Your task to perform on an android device: delete location history Image 0: 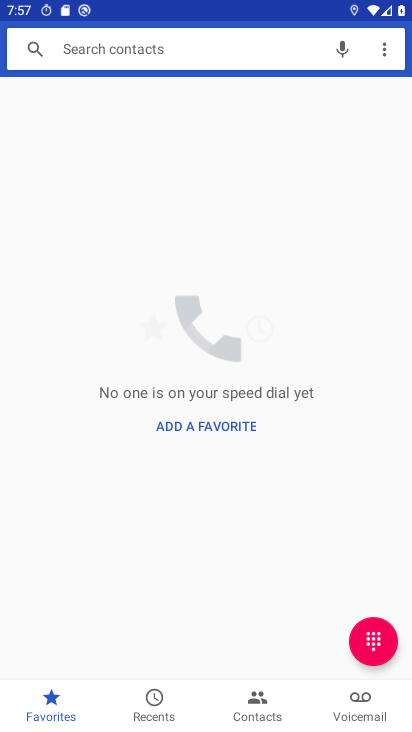
Step 0: press home button
Your task to perform on an android device: delete location history Image 1: 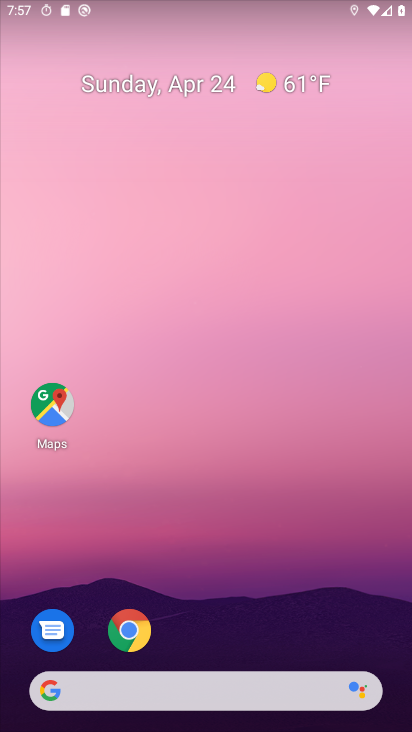
Step 1: drag from (282, 613) to (274, 102)
Your task to perform on an android device: delete location history Image 2: 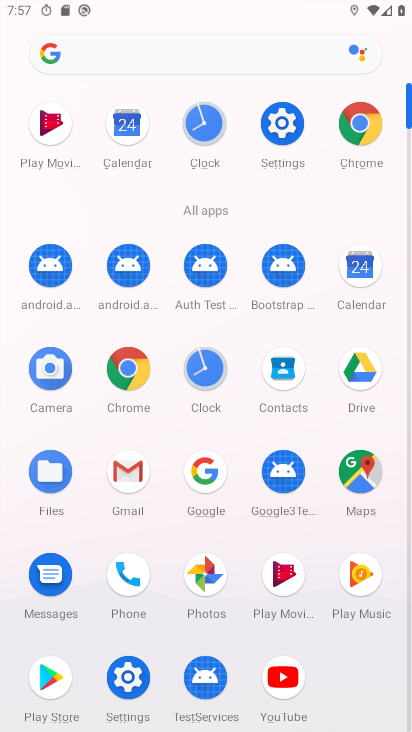
Step 2: click (354, 471)
Your task to perform on an android device: delete location history Image 3: 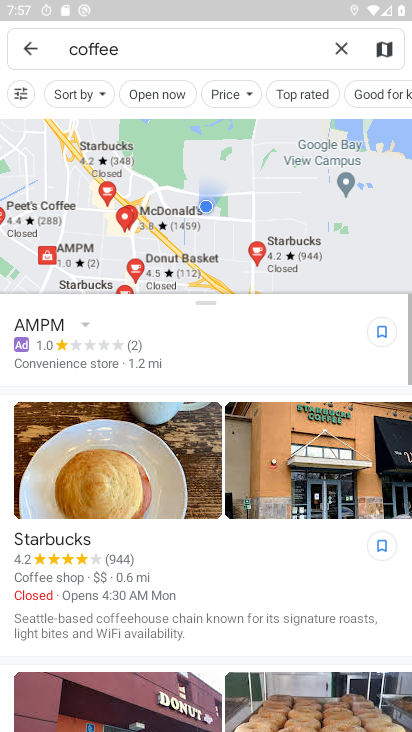
Step 3: click (32, 44)
Your task to perform on an android device: delete location history Image 4: 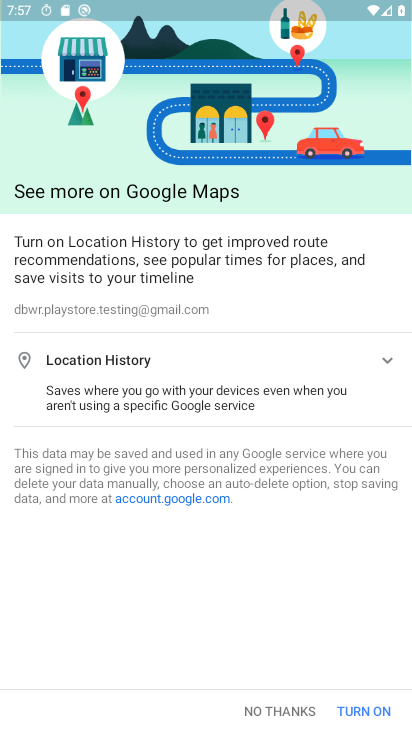
Step 4: click (380, 358)
Your task to perform on an android device: delete location history Image 5: 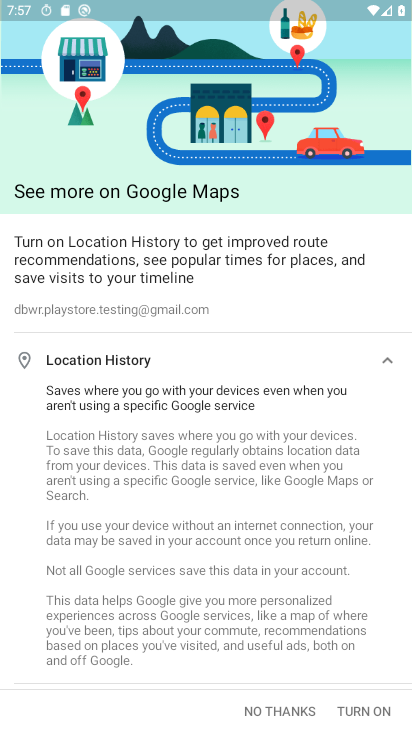
Step 5: drag from (320, 568) to (321, 195)
Your task to perform on an android device: delete location history Image 6: 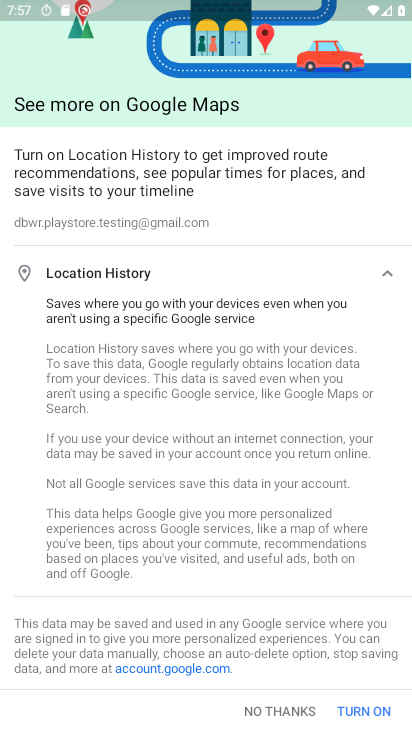
Step 6: click (268, 717)
Your task to perform on an android device: delete location history Image 7: 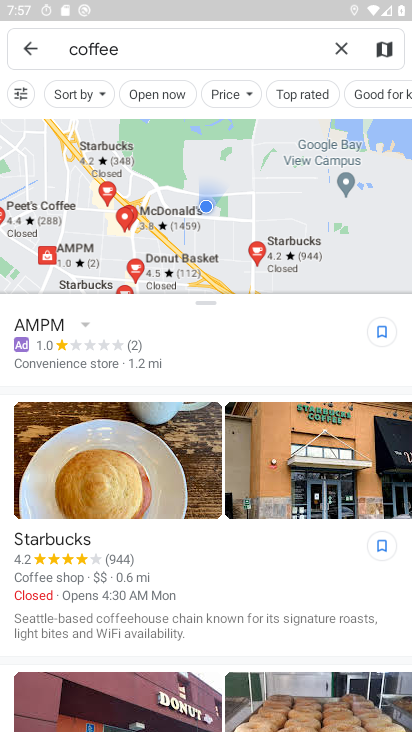
Step 7: click (23, 53)
Your task to perform on an android device: delete location history Image 8: 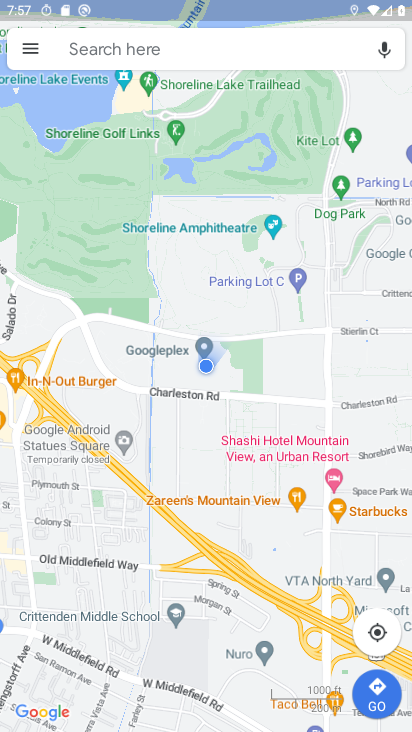
Step 8: click (34, 37)
Your task to perform on an android device: delete location history Image 9: 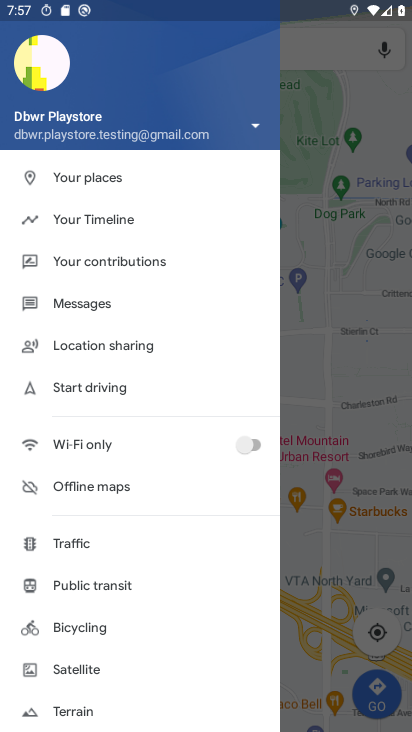
Step 9: click (118, 214)
Your task to perform on an android device: delete location history Image 10: 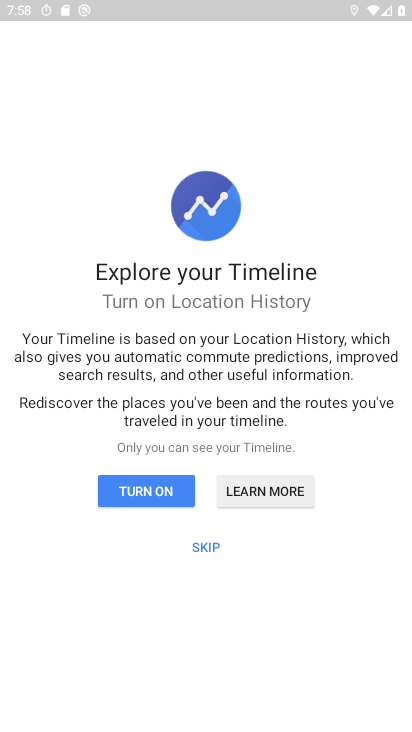
Step 10: click (210, 550)
Your task to perform on an android device: delete location history Image 11: 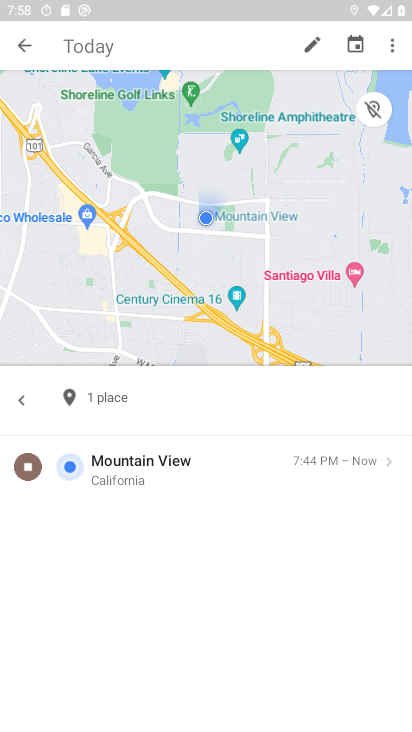
Step 11: click (396, 44)
Your task to perform on an android device: delete location history Image 12: 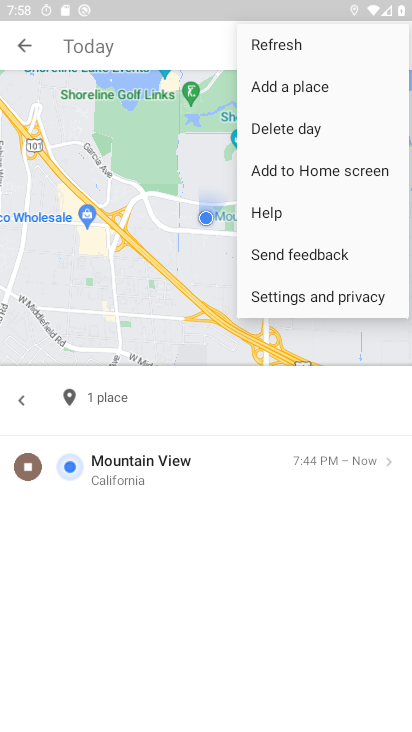
Step 12: click (287, 292)
Your task to perform on an android device: delete location history Image 13: 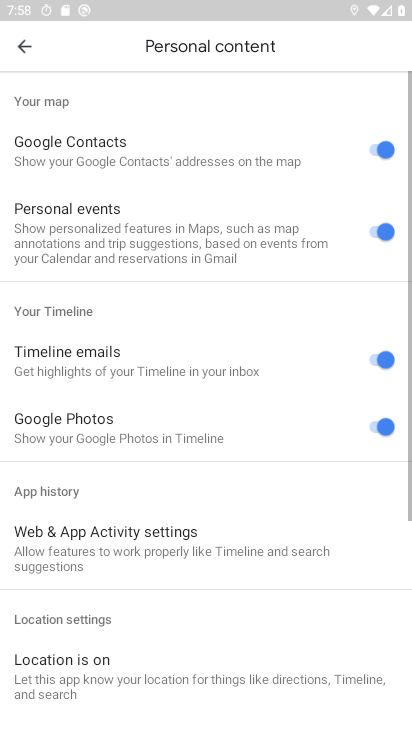
Step 13: drag from (266, 584) to (297, 368)
Your task to perform on an android device: delete location history Image 14: 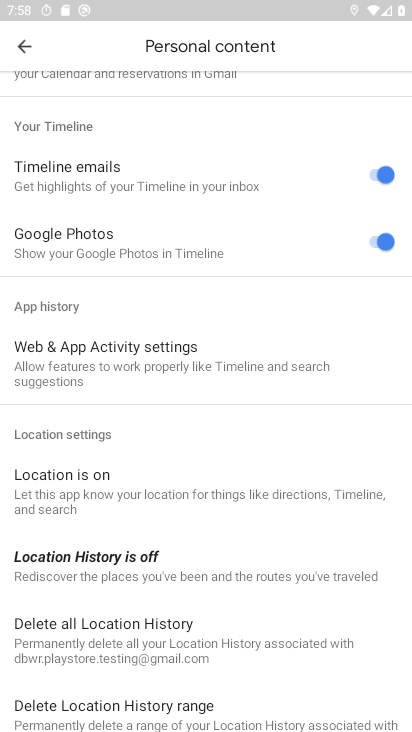
Step 14: drag from (301, 542) to (312, 340)
Your task to perform on an android device: delete location history Image 15: 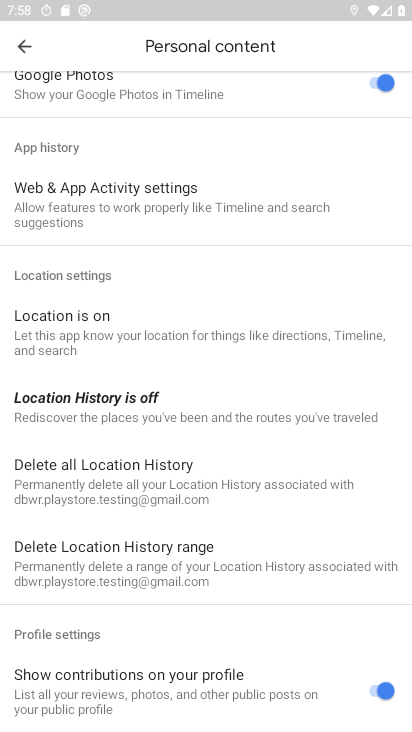
Step 15: drag from (317, 584) to (316, 369)
Your task to perform on an android device: delete location history Image 16: 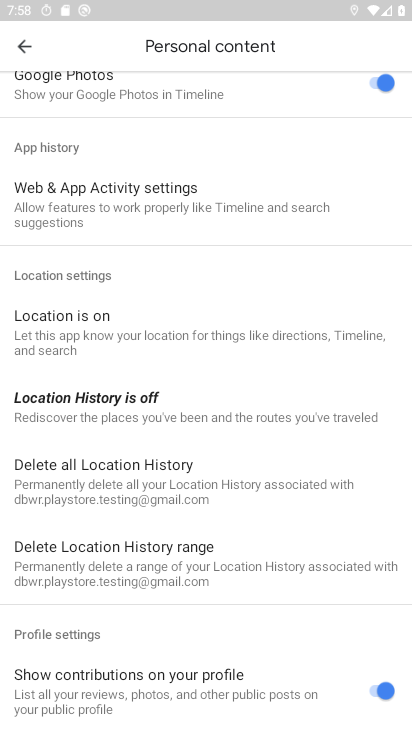
Step 16: click (257, 487)
Your task to perform on an android device: delete location history Image 17: 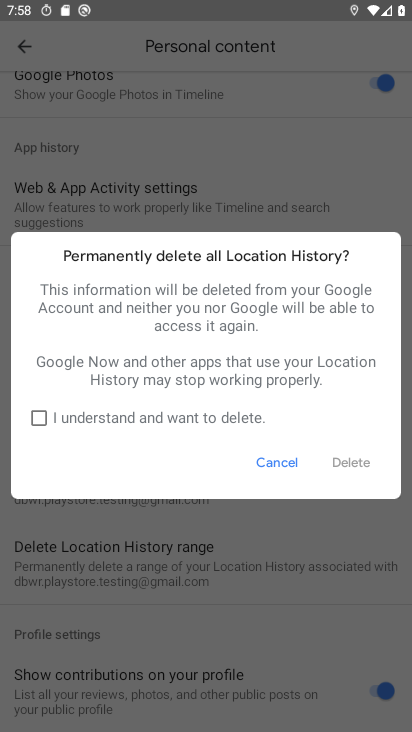
Step 17: click (45, 417)
Your task to perform on an android device: delete location history Image 18: 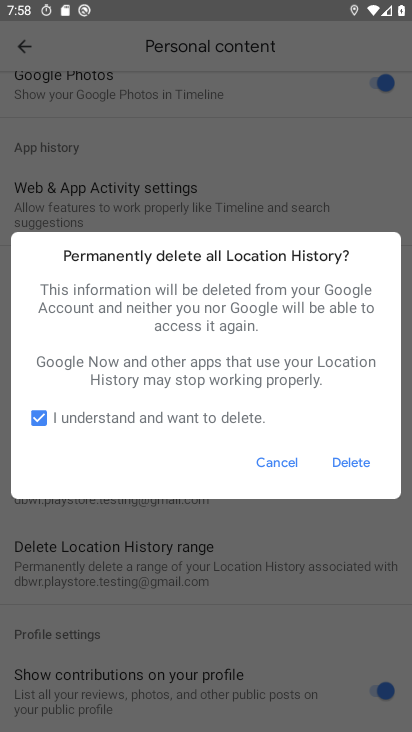
Step 18: click (358, 464)
Your task to perform on an android device: delete location history Image 19: 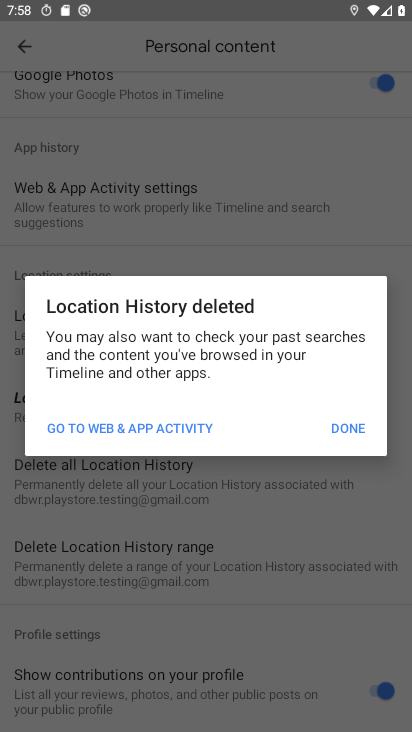
Step 19: click (361, 424)
Your task to perform on an android device: delete location history Image 20: 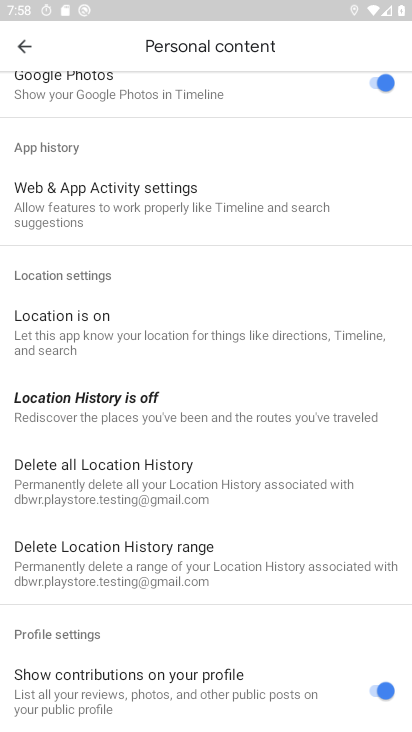
Step 20: task complete